Your task to perform on an android device: toggle data saver in the chrome app Image 0: 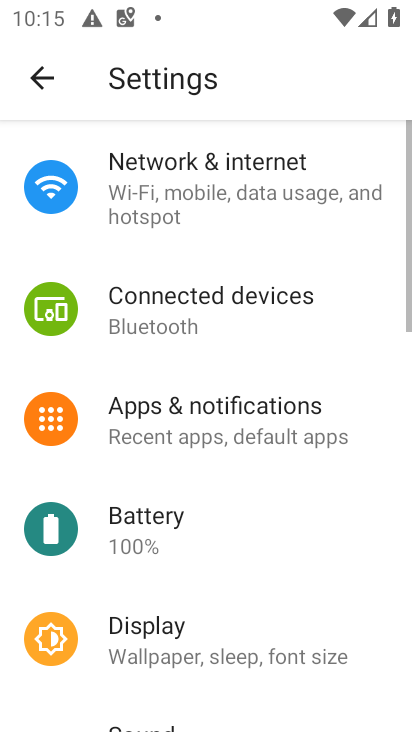
Step 0: press home button
Your task to perform on an android device: toggle data saver in the chrome app Image 1: 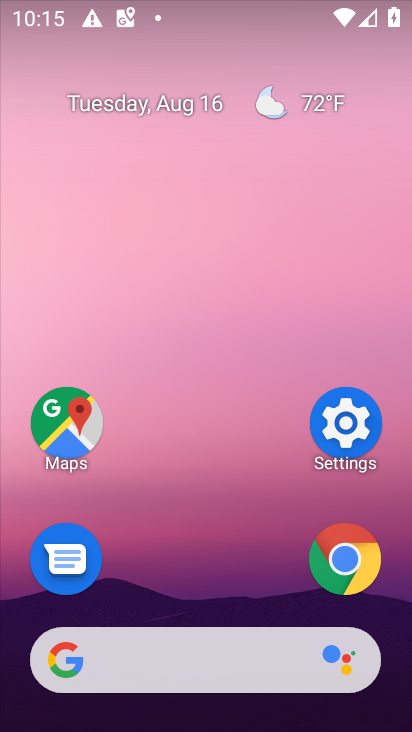
Step 1: click (342, 562)
Your task to perform on an android device: toggle data saver in the chrome app Image 2: 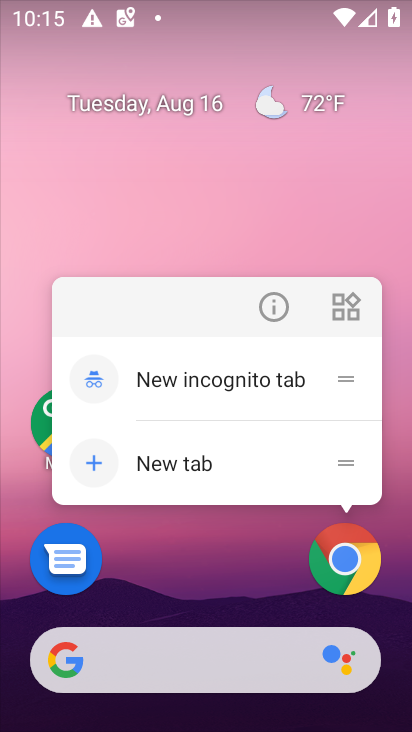
Step 2: click (348, 571)
Your task to perform on an android device: toggle data saver in the chrome app Image 3: 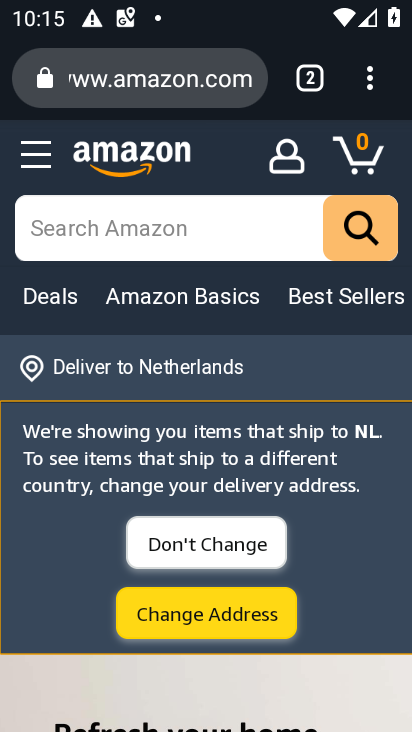
Step 3: drag from (367, 84) to (226, 613)
Your task to perform on an android device: toggle data saver in the chrome app Image 4: 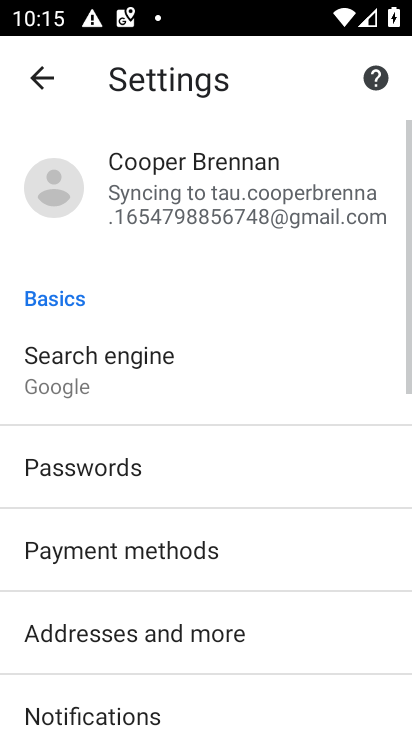
Step 4: drag from (252, 662) to (338, 63)
Your task to perform on an android device: toggle data saver in the chrome app Image 5: 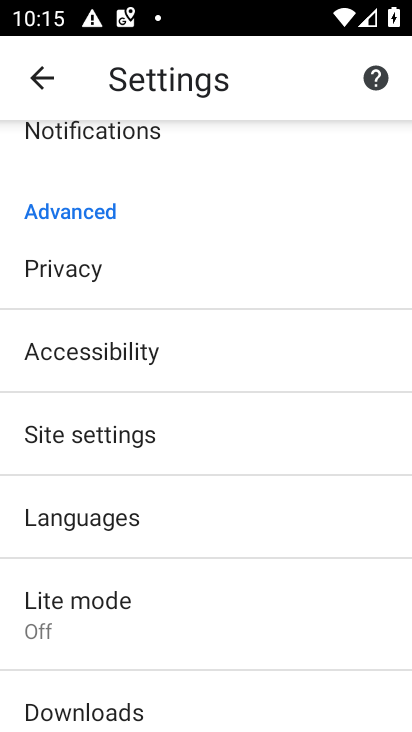
Step 5: click (102, 594)
Your task to perform on an android device: toggle data saver in the chrome app Image 6: 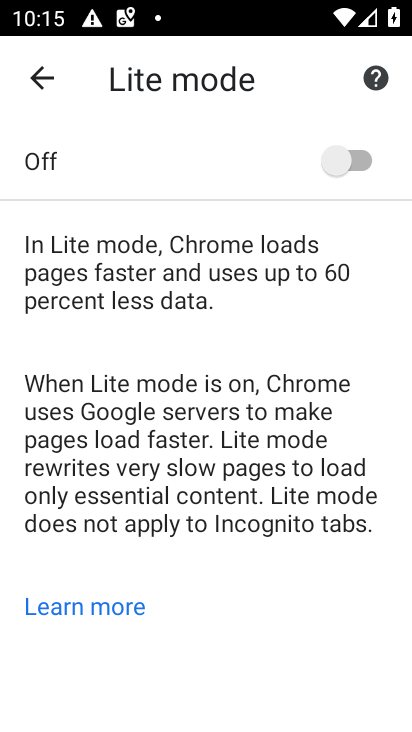
Step 6: click (357, 160)
Your task to perform on an android device: toggle data saver in the chrome app Image 7: 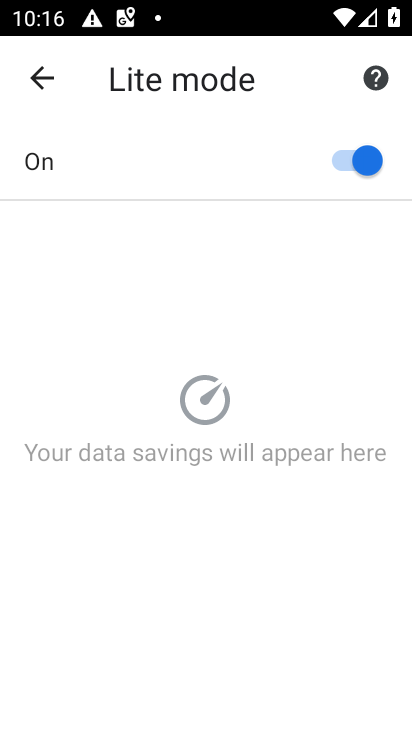
Step 7: task complete